Your task to perform on an android device: What's the weather? Image 0: 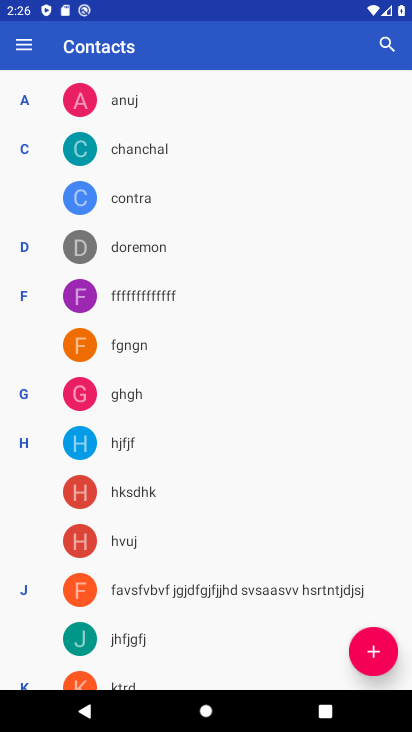
Step 0: press home button
Your task to perform on an android device: What's the weather? Image 1: 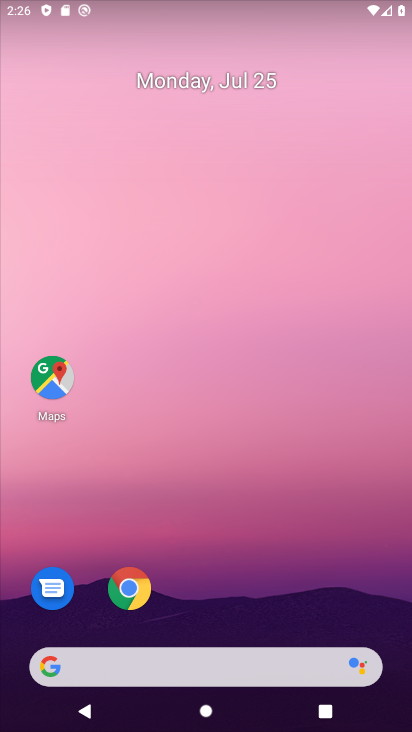
Step 1: drag from (334, 584) to (299, 74)
Your task to perform on an android device: What's the weather? Image 2: 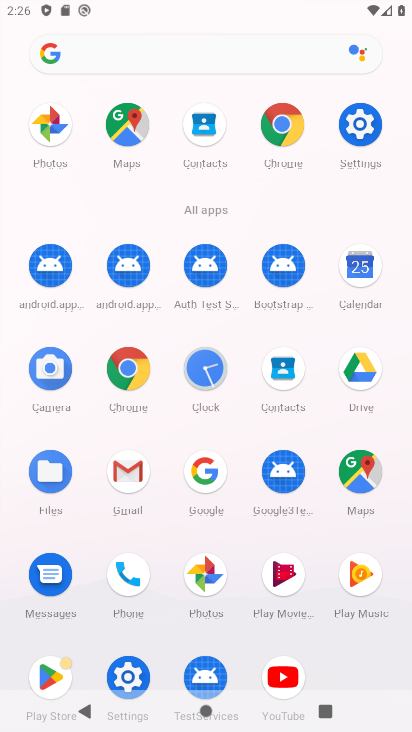
Step 2: click (283, 121)
Your task to perform on an android device: What's the weather? Image 3: 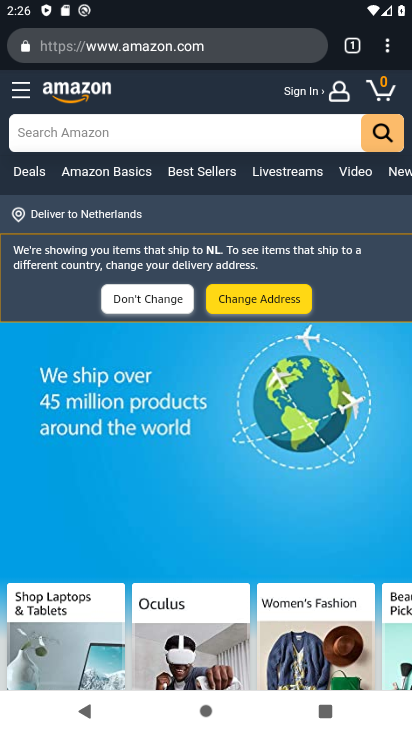
Step 3: click (218, 48)
Your task to perform on an android device: What's the weather? Image 4: 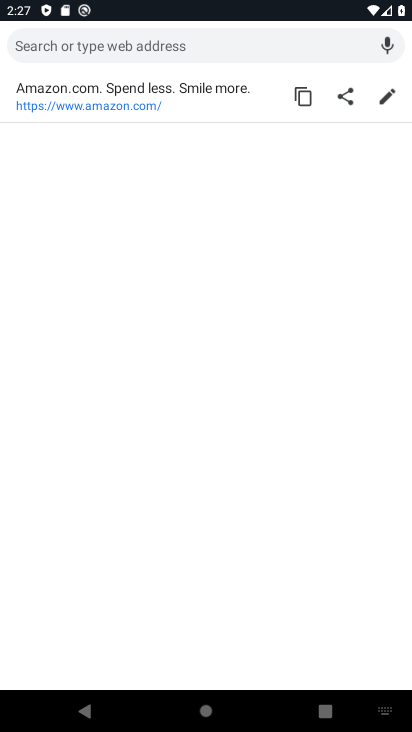
Step 4: type "weather"
Your task to perform on an android device: What's the weather? Image 5: 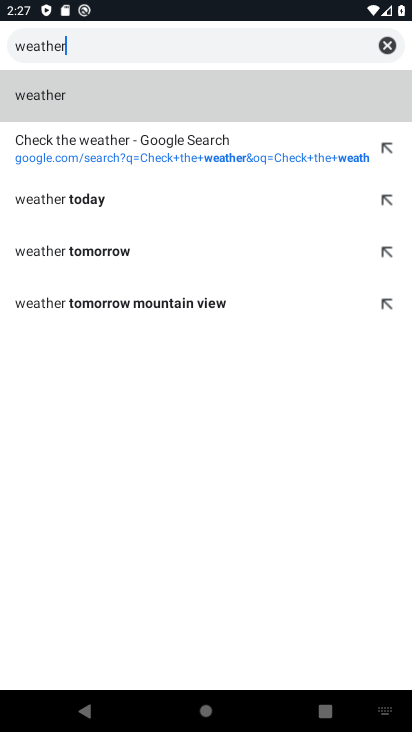
Step 5: click (91, 111)
Your task to perform on an android device: What's the weather? Image 6: 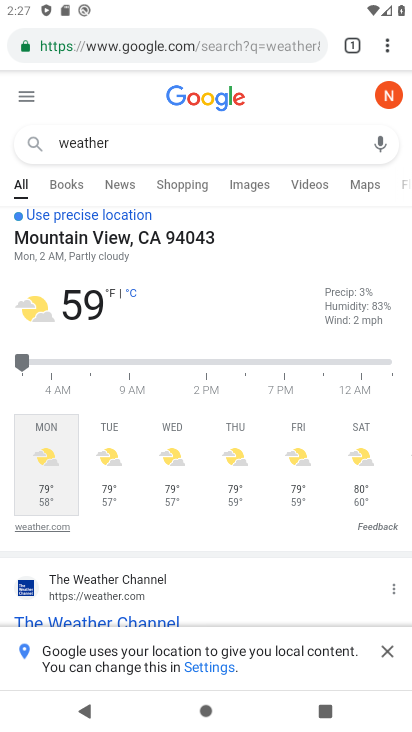
Step 6: task complete